Your task to perform on an android device: uninstall "Instagram" Image 0: 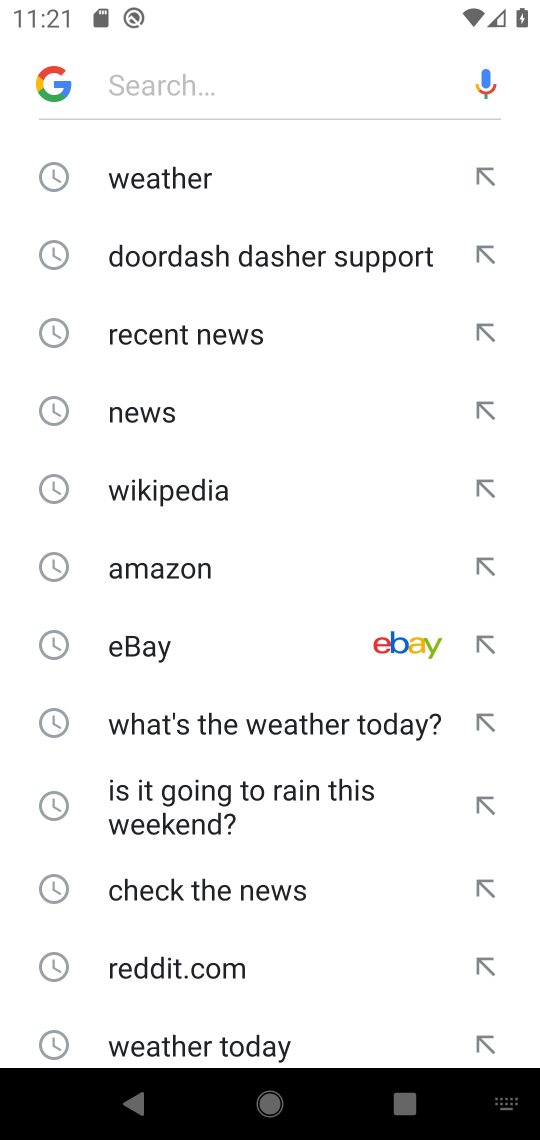
Step 0: type "instagram"
Your task to perform on an android device: uninstall "Instagram" Image 1: 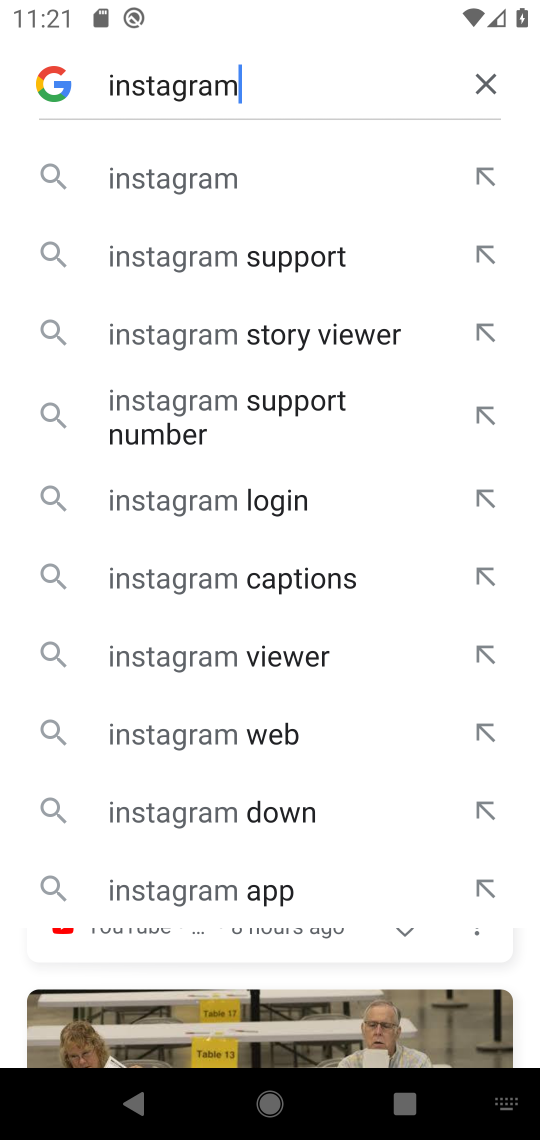
Step 1: click (269, 872)
Your task to perform on an android device: uninstall "Instagram" Image 2: 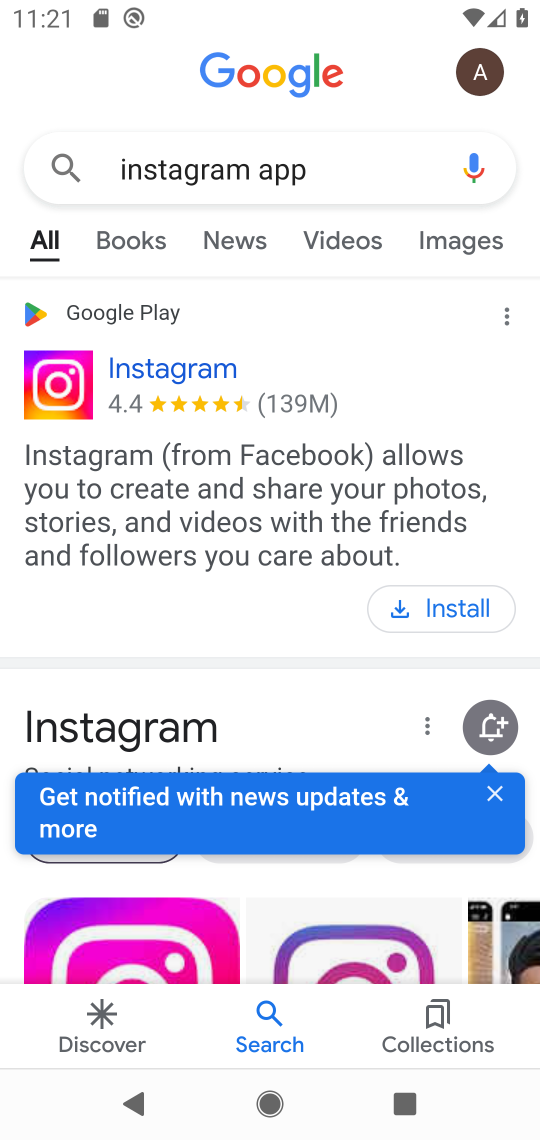
Step 2: click (407, 599)
Your task to perform on an android device: uninstall "Instagram" Image 3: 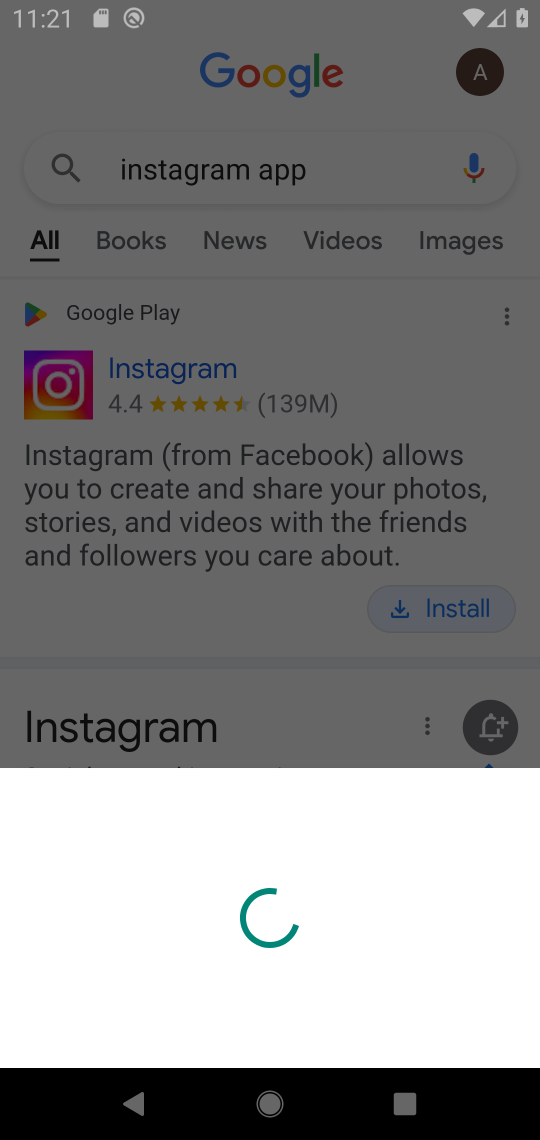
Step 3: task complete